Your task to perform on an android device: change alarm snooze length Image 0: 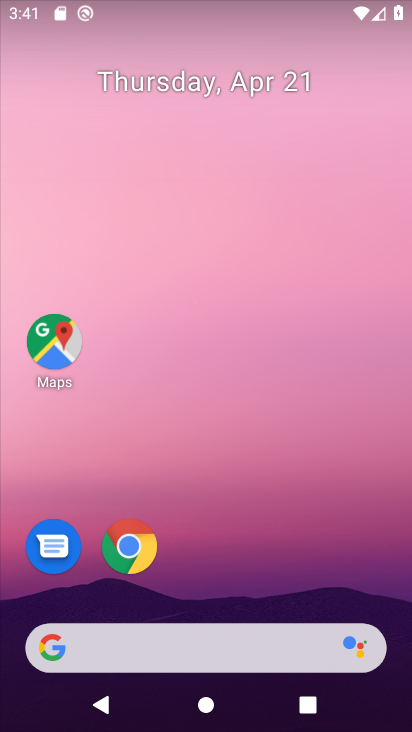
Step 0: drag from (191, 434) to (215, 205)
Your task to perform on an android device: change alarm snooze length Image 1: 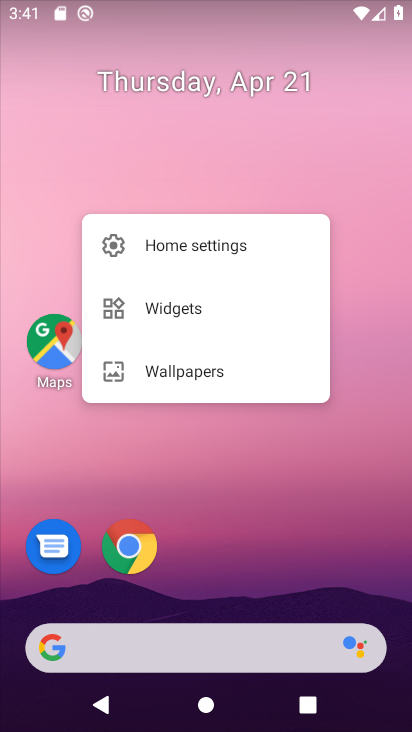
Step 1: click (292, 480)
Your task to perform on an android device: change alarm snooze length Image 2: 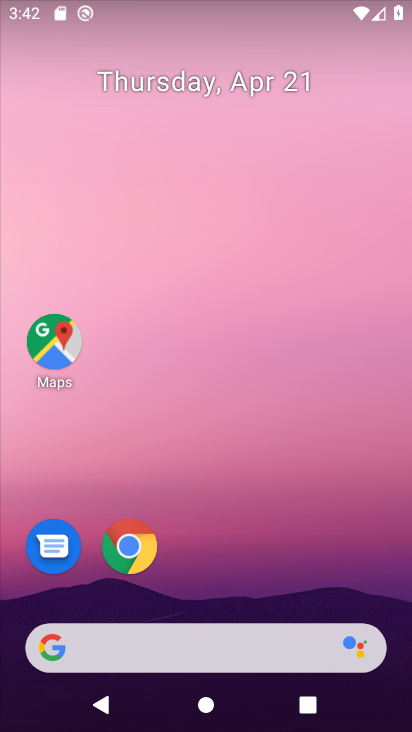
Step 2: drag from (200, 608) to (306, 34)
Your task to perform on an android device: change alarm snooze length Image 3: 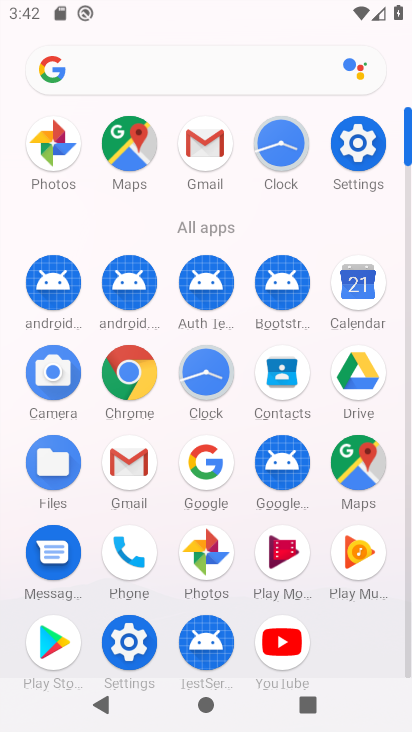
Step 3: click (219, 367)
Your task to perform on an android device: change alarm snooze length Image 4: 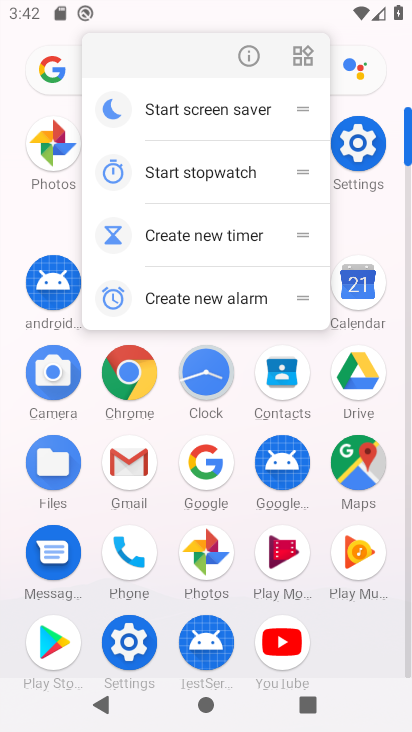
Step 4: click (251, 56)
Your task to perform on an android device: change alarm snooze length Image 5: 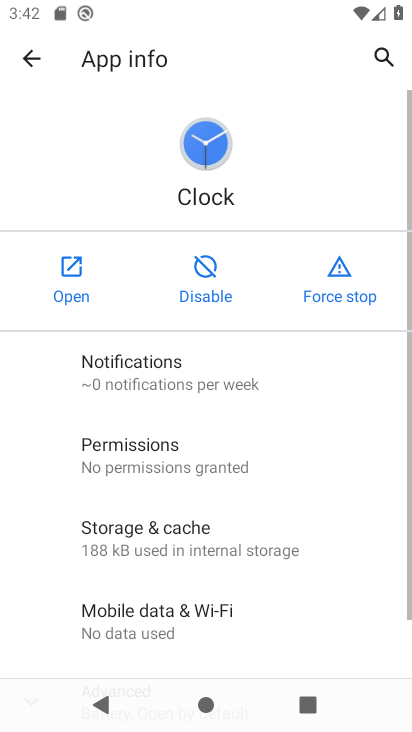
Step 5: click (81, 279)
Your task to perform on an android device: change alarm snooze length Image 6: 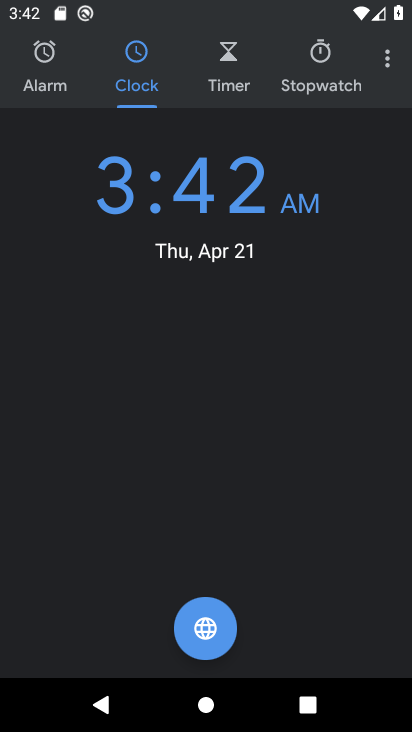
Step 6: click (385, 56)
Your task to perform on an android device: change alarm snooze length Image 7: 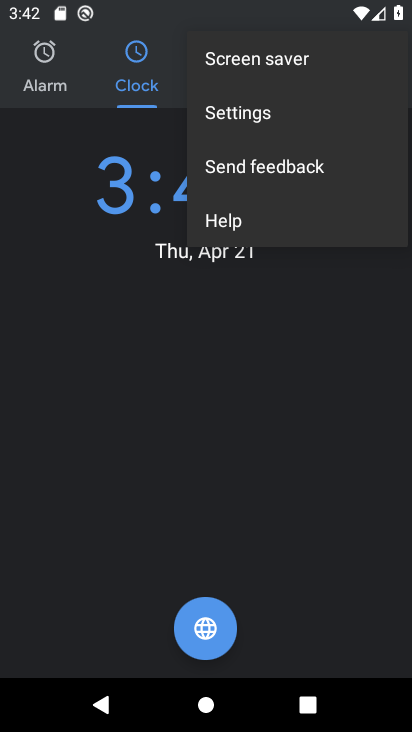
Step 7: click (246, 133)
Your task to perform on an android device: change alarm snooze length Image 8: 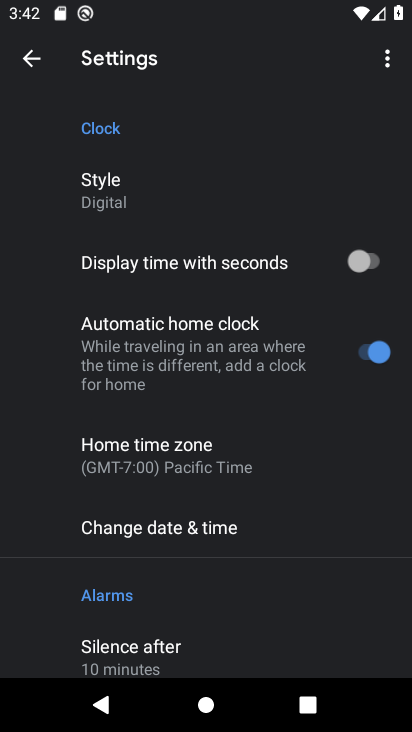
Step 8: drag from (272, 441) to (272, 185)
Your task to perform on an android device: change alarm snooze length Image 9: 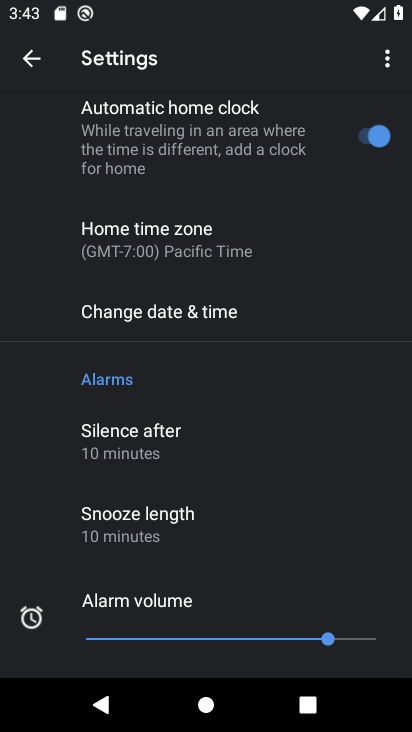
Step 9: click (223, 536)
Your task to perform on an android device: change alarm snooze length Image 10: 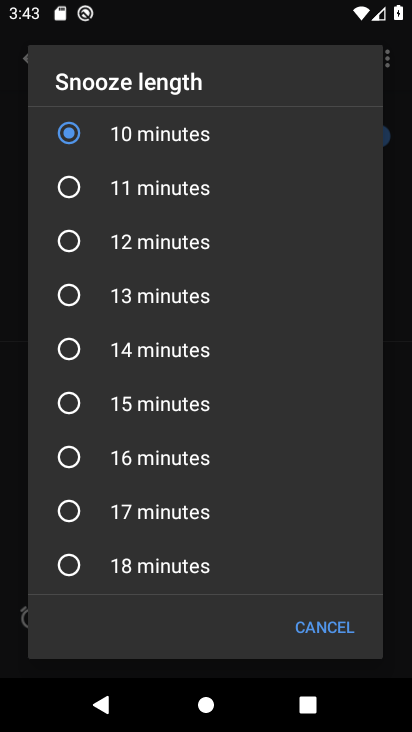
Step 10: click (141, 293)
Your task to perform on an android device: change alarm snooze length Image 11: 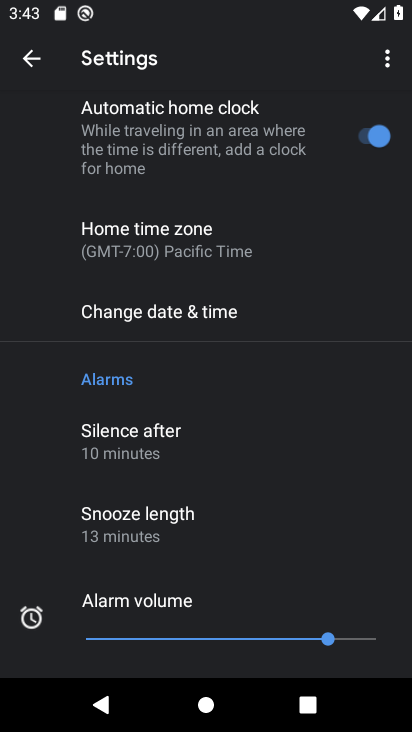
Step 11: drag from (237, 571) to (240, 302)
Your task to perform on an android device: change alarm snooze length Image 12: 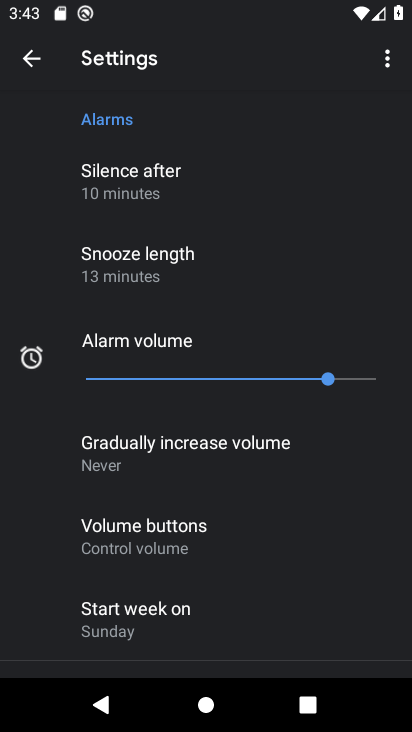
Step 12: click (165, 276)
Your task to perform on an android device: change alarm snooze length Image 13: 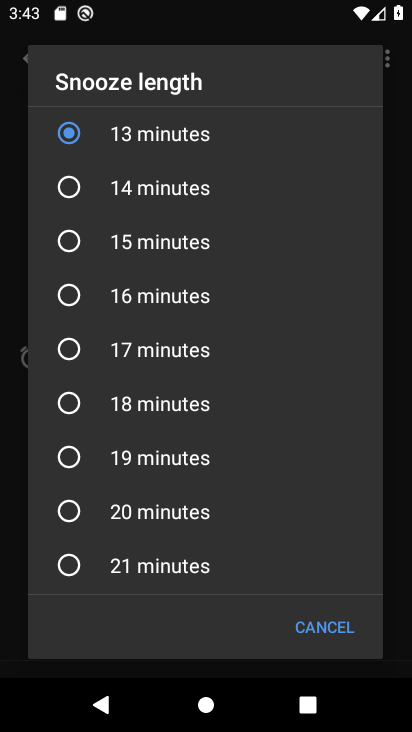
Step 13: drag from (248, 479) to (268, 248)
Your task to perform on an android device: change alarm snooze length Image 14: 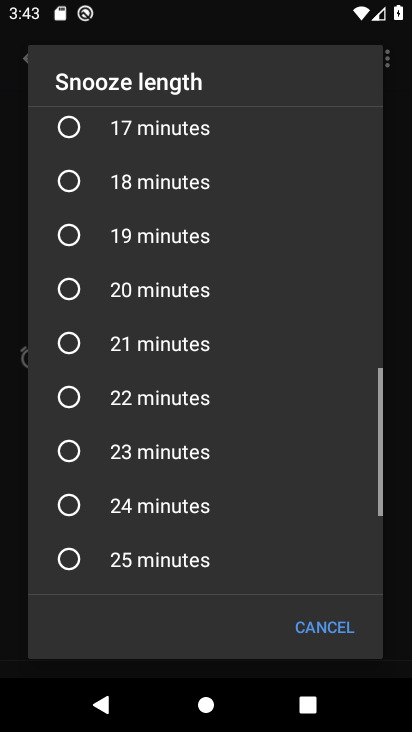
Step 14: click (119, 286)
Your task to perform on an android device: change alarm snooze length Image 15: 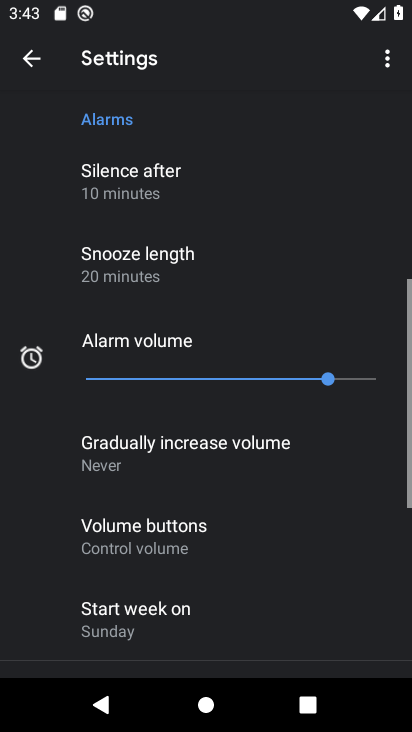
Step 15: task complete